Your task to perform on an android device: turn off picture-in-picture Image 0: 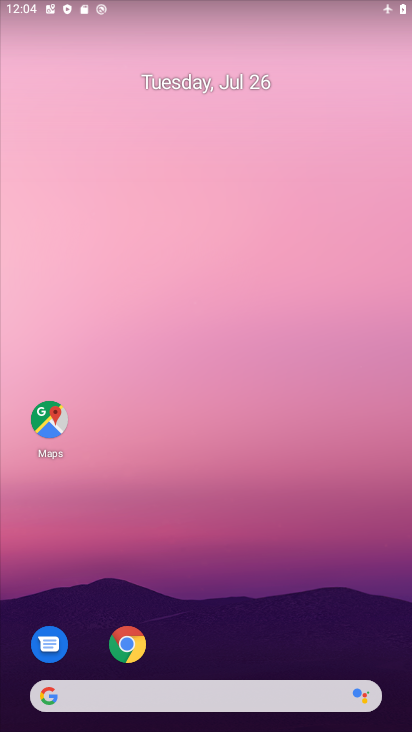
Step 0: drag from (234, 658) to (315, 81)
Your task to perform on an android device: turn off picture-in-picture Image 1: 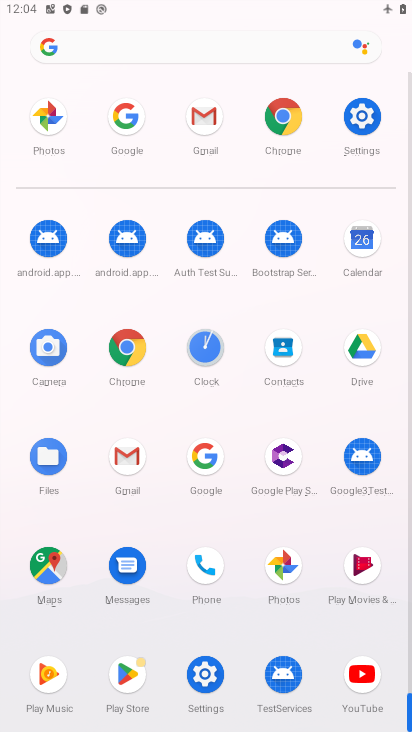
Step 1: click (356, 138)
Your task to perform on an android device: turn off picture-in-picture Image 2: 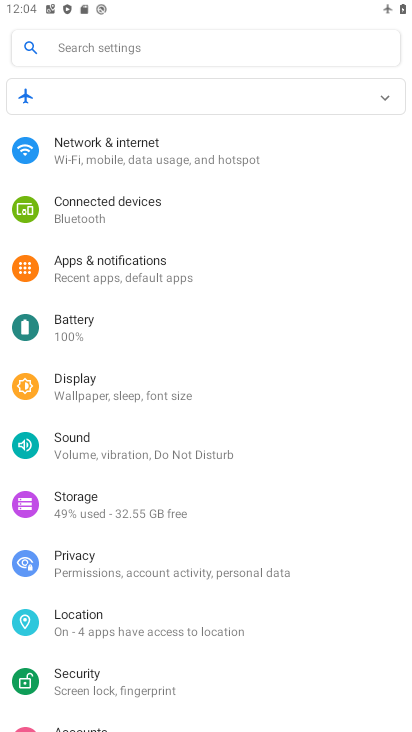
Step 2: click (212, 278)
Your task to perform on an android device: turn off picture-in-picture Image 3: 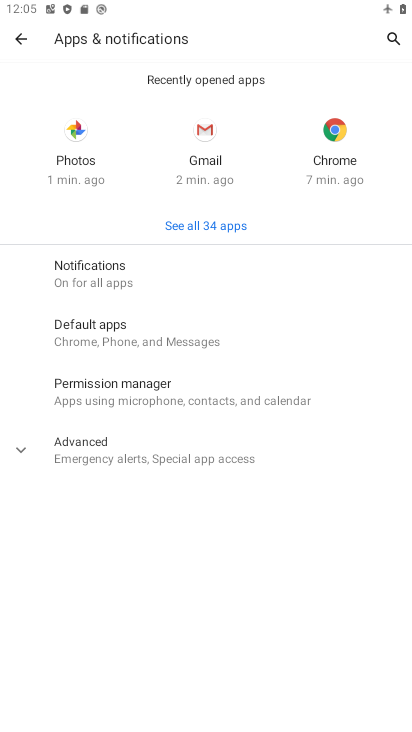
Step 3: click (82, 438)
Your task to perform on an android device: turn off picture-in-picture Image 4: 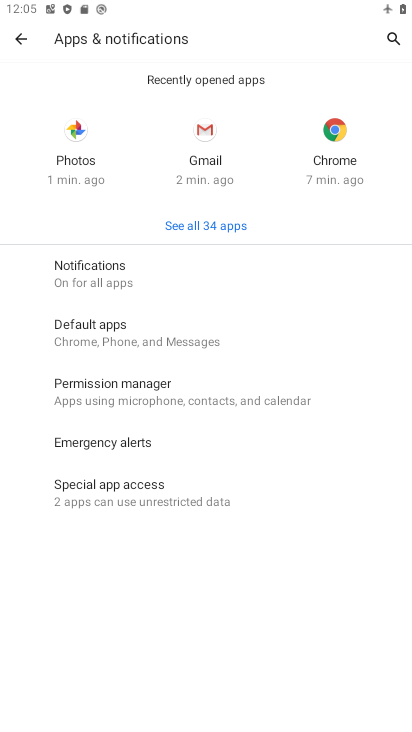
Step 4: click (92, 506)
Your task to perform on an android device: turn off picture-in-picture Image 5: 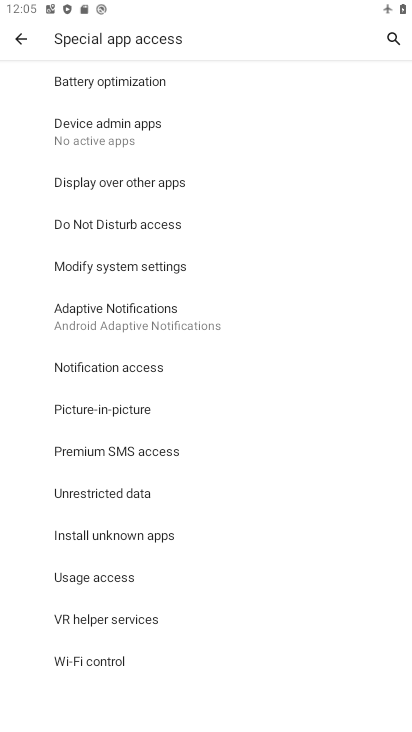
Step 5: click (121, 413)
Your task to perform on an android device: turn off picture-in-picture Image 6: 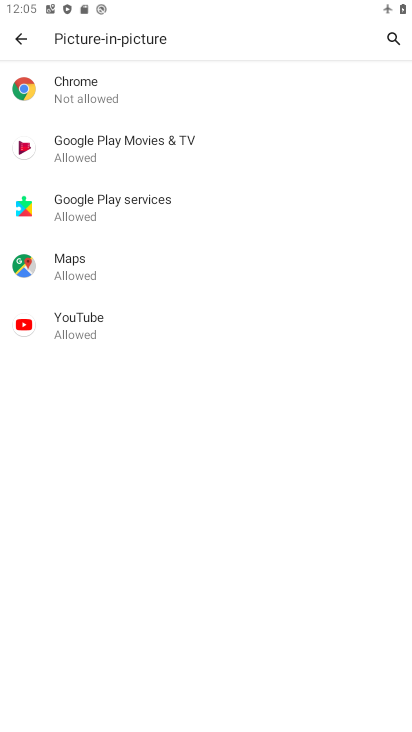
Step 6: click (162, 156)
Your task to perform on an android device: turn off picture-in-picture Image 7: 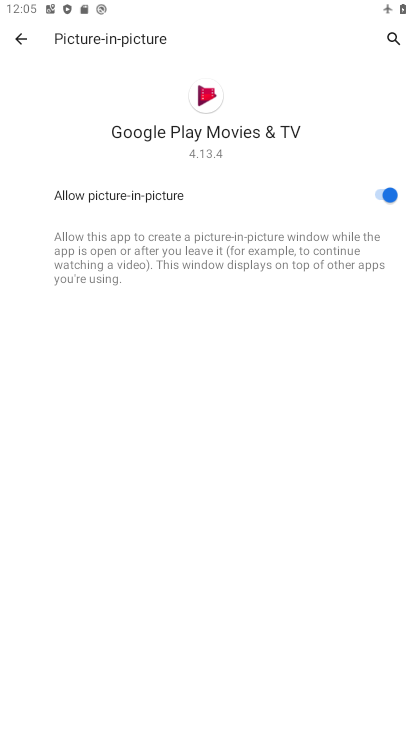
Step 7: click (374, 189)
Your task to perform on an android device: turn off picture-in-picture Image 8: 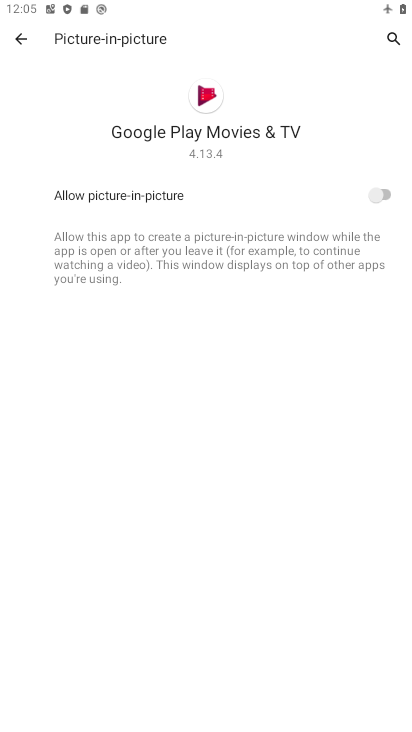
Step 8: task complete